Your task to perform on an android device: Open settings on Google Maps Image 0: 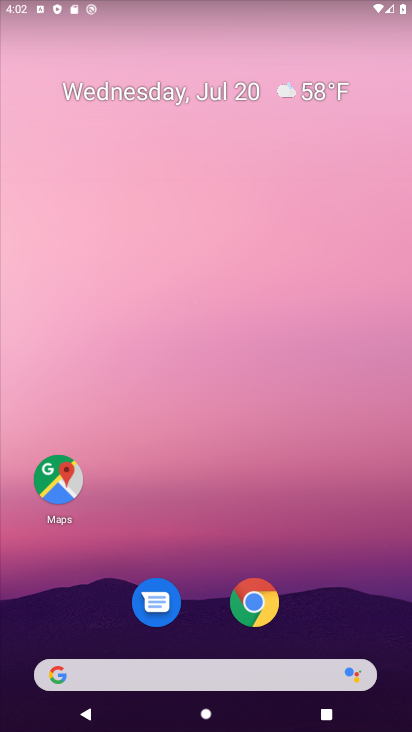
Step 0: click (223, 636)
Your task to perform on an android device: Open settings on Google Maps Image 1: 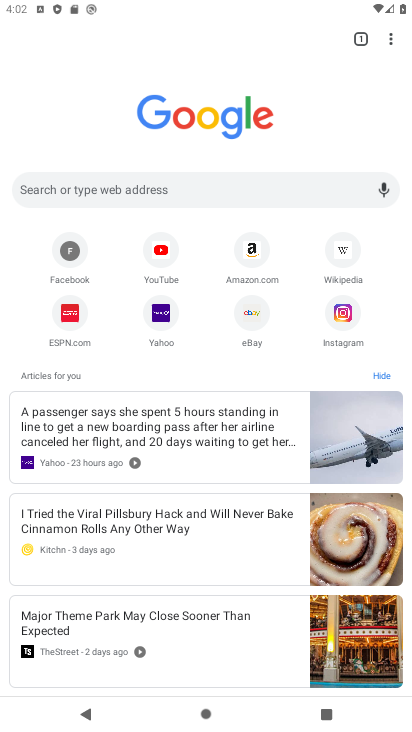
Step 1: press home button
Your task to perform on an android device: Open settings on Google Maps Image 2: 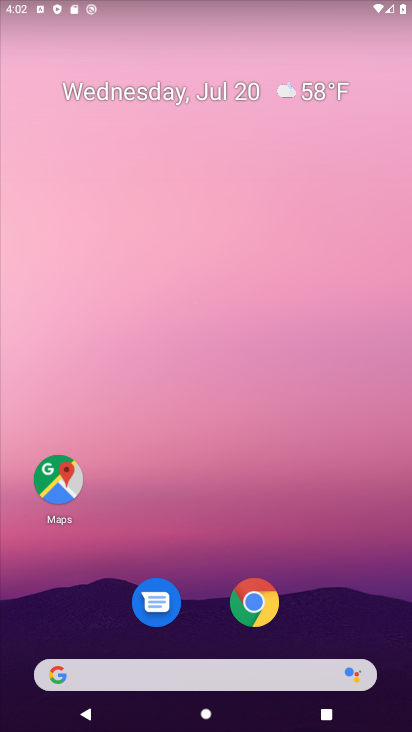
Step 2: click (58, 474)
Your task to perform on an android device: Open settings on Google Maps Image 3: 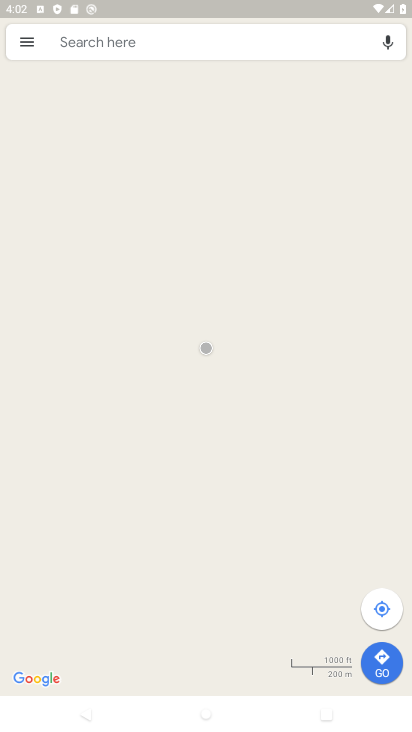
Step 3: click (24, 40)
Your task to perform on an android device: Open settings on Google Maps Image 4: 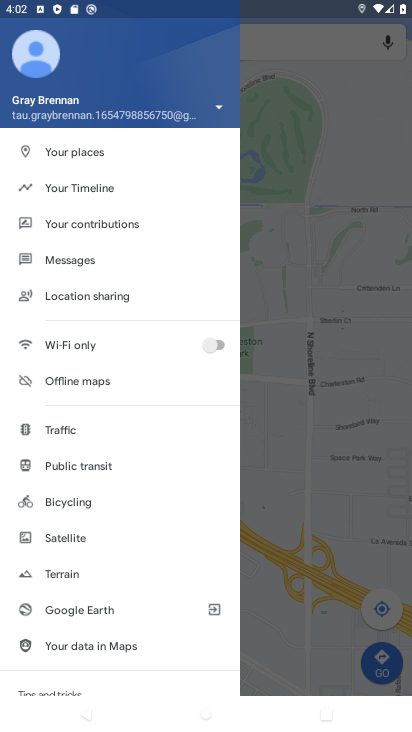
Step 4: drag from (97, 582) to (93, 451)
Your task to perform on an android device: Open settings on Google Maps Image 5: 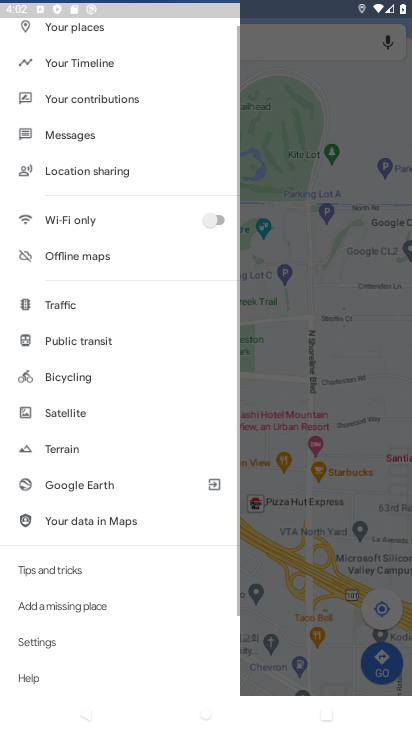
Step 5: click (45, 650)
Your task to perform on an android device: Open settings on Google Maps Image 6: 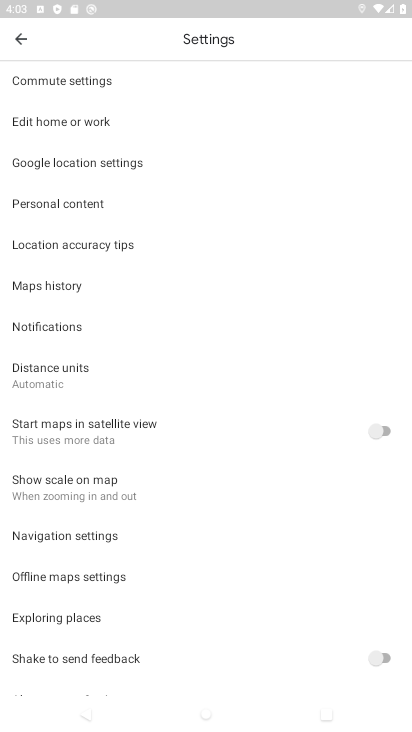
Step 6: task complete